Your task to perform on an android device: open a bookmark in the chrome app Image 0: 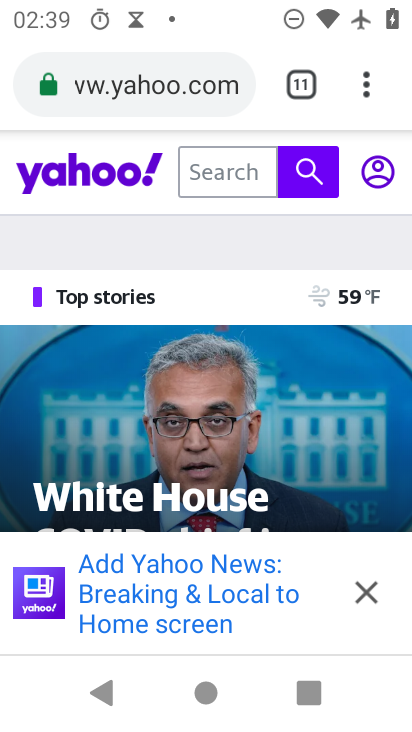
Step 0: press home button
Your task to perform on an android device: open a bookmark in the chrome app Image 1: 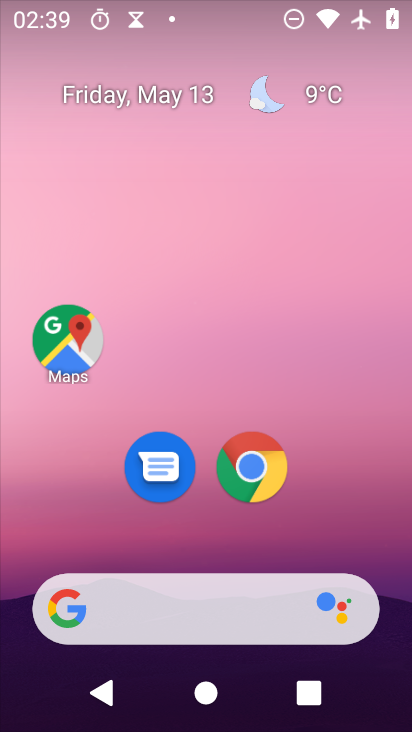
Step 1: click (270, 474)
Your task to perform on an android device: open a bookmark in the chrome app Image 2: 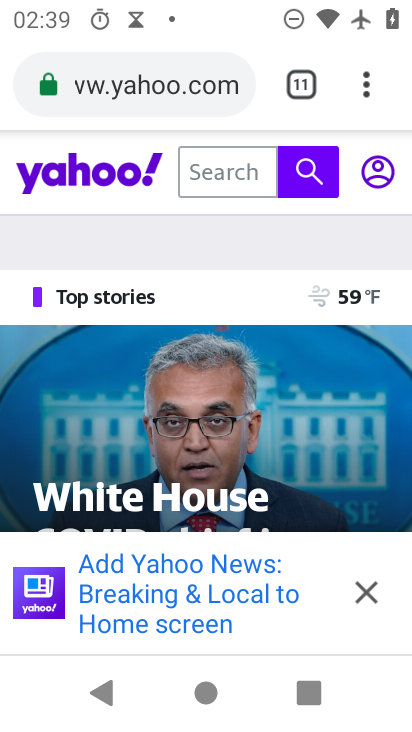
Step 2: click (366, 84)
Your task to perform on an android device: open a bookmark in the chrome app Image 3: 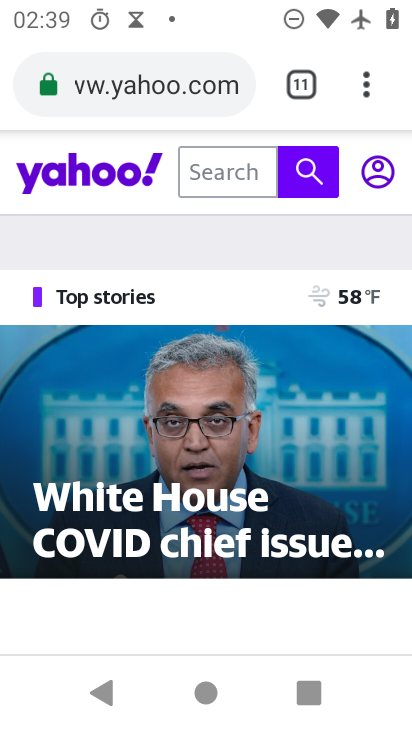
Step 3: click (367, 84)
Your task to perform on an android device: open a bookmark in the chrome app Image 4: 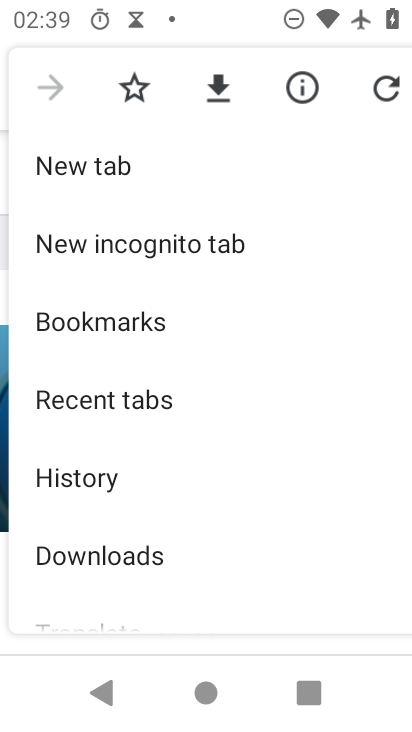
Step 4: click (126, 330)
Your task to perform on an android device: open a bookmark in the chrome app Image 5: 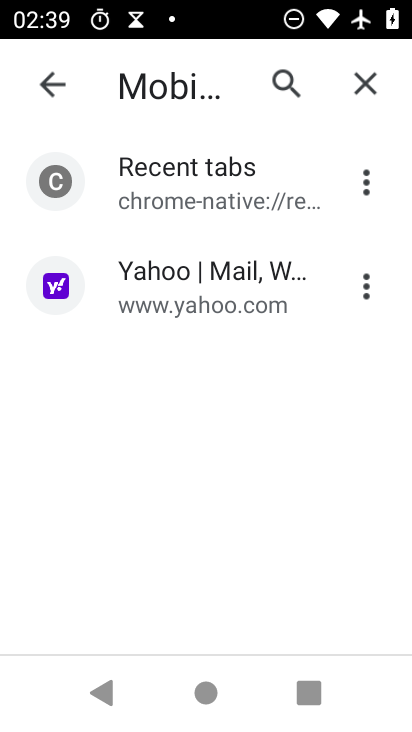
Step 5: click (223, 186)
Your task to perform on an android device: open a bookmark in the chrome app Image 6: 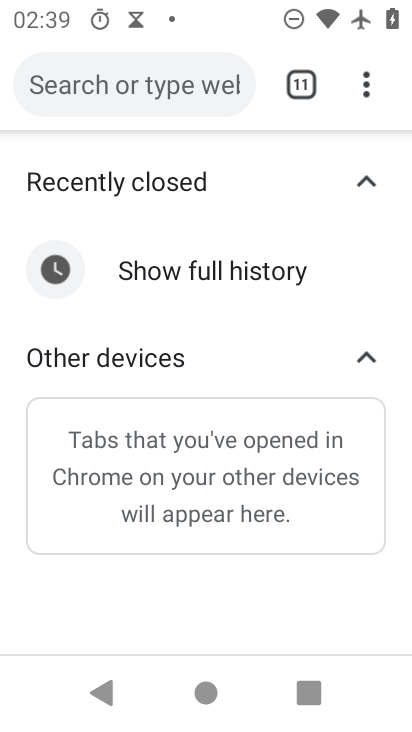
Step 6: task complete